Your task to perform on an android device: open sync settings in chrome Image 0: 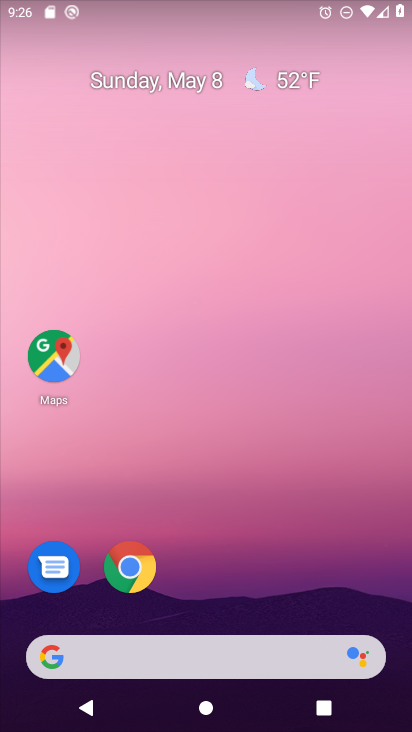
Step 0: drag from (297, 528) to (245, 152)
Your task to perform on an android device: open sync settings in chrome Image 1: 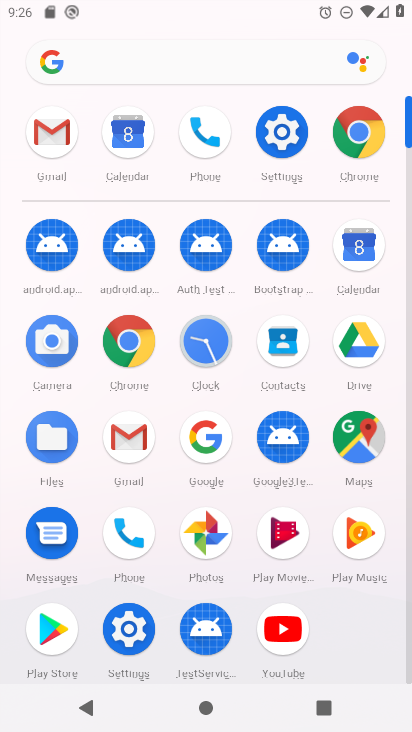
Step 1: click (345, 139)
Your task to perform on an android device: open sync settings in chrome Image 2: 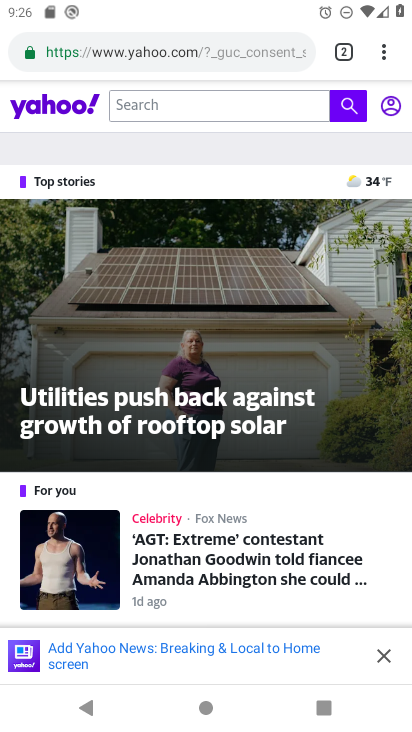
Step 2: drag from (382, 50) to (237, 617)
Your task to perform on an android device: open sync settings in chrome Image 3: 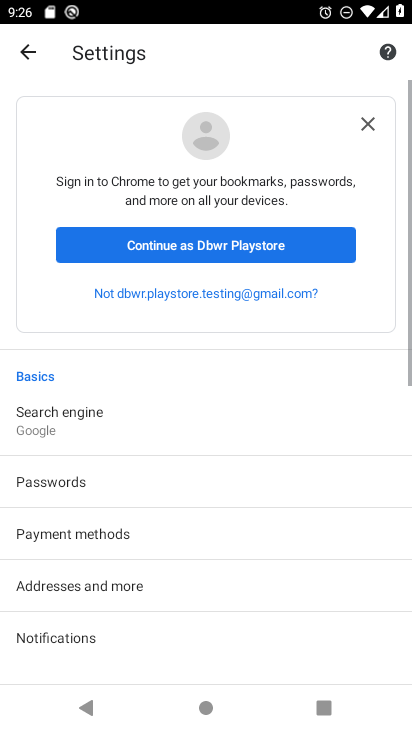
Step 3: drag from (227, 599) to (176, 182)
Your task to perform on an android device: open sync settings in chrome Image 4: 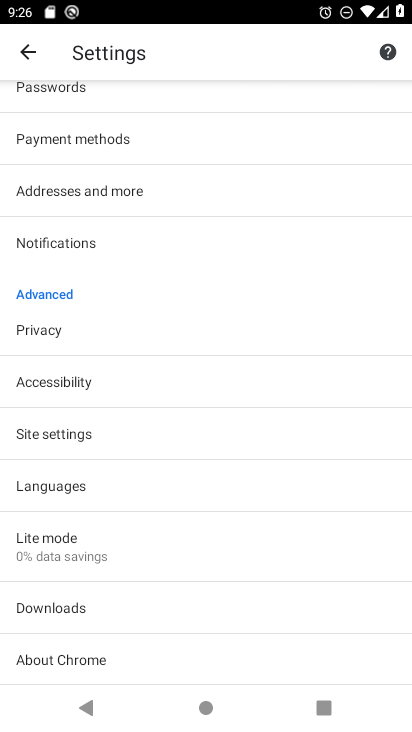
Step 4: click (102, 442)
Your task to perform on an android device: open sync settings in chrome Image 5: 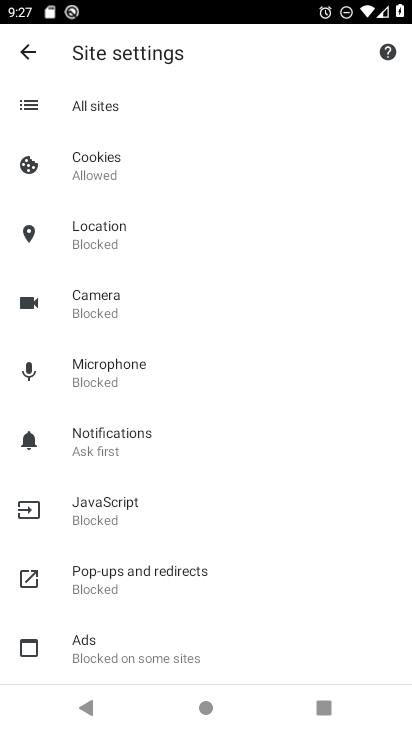
Step 5: drag from (209, 363) to (168, 244)
Your task to perform on an android device: open sync settings in chrome Image 6: 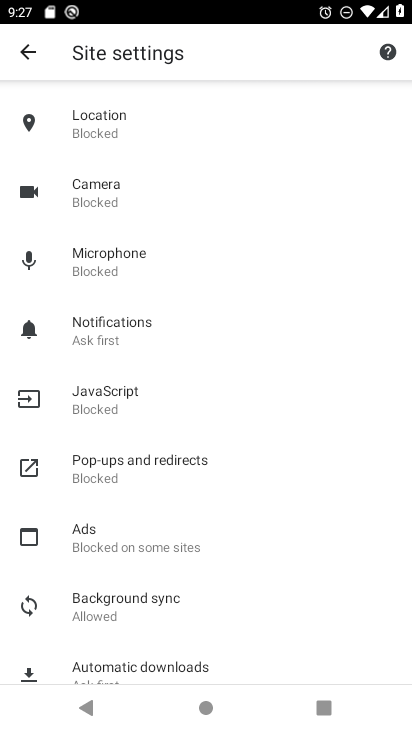
Step 6: click (136, 609)
Your task to perform on an android device: open sync settings in chrome Image 7: 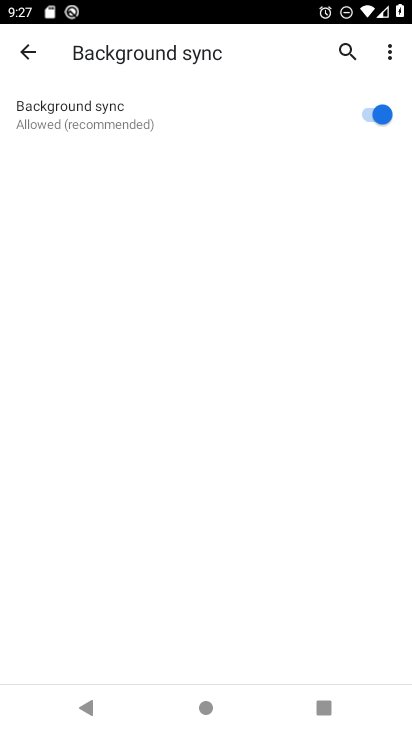
Step 7: task complete